Your task to perform on an android device: Set the phone to "Do not disturb". Image 0: 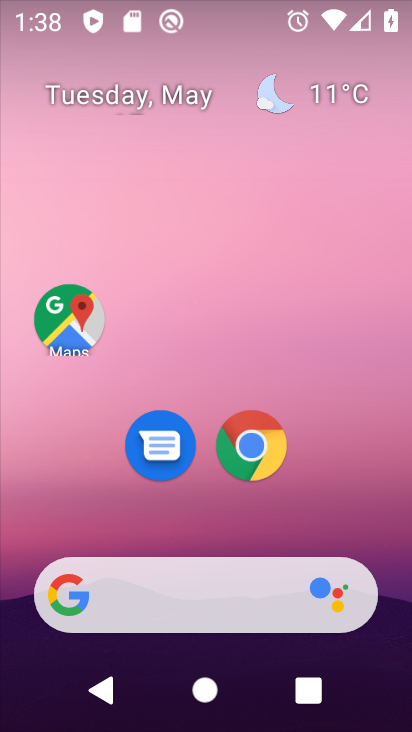
Step 0: drag from (288, 13) to (269, 208)
Your task to perform on an android device: Set the phone to "Do not disturb". Image 1: 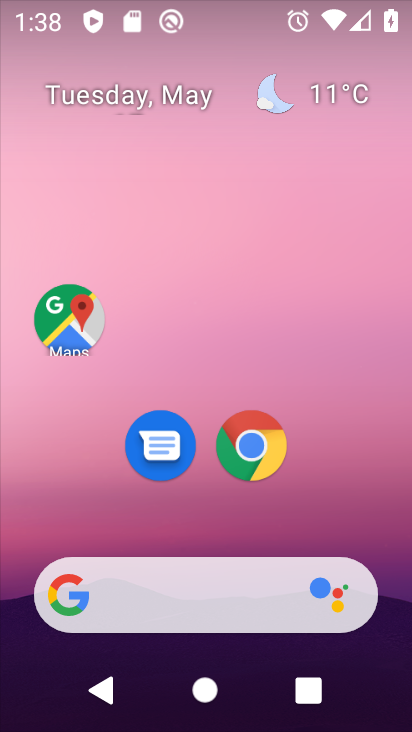
Step 1: drag from (264, 10) to (350, 481)
Your task to perform on an android device: Set the phone to "Do not disturb". Image 2: 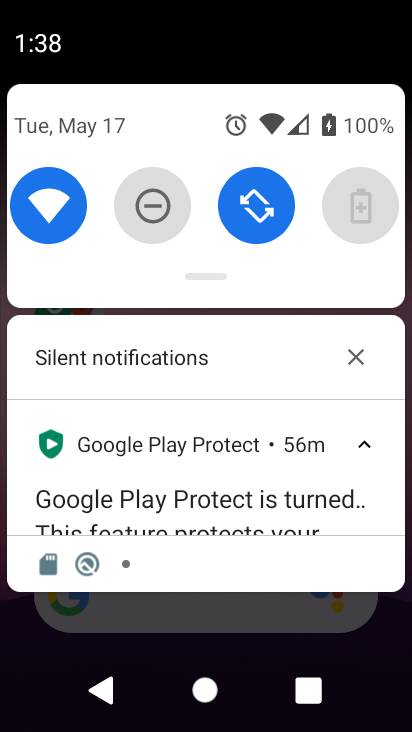
Step 2: click (162, 200)
Your task to perform on an android device: Set the phone to "Do not disturb". Image 3: 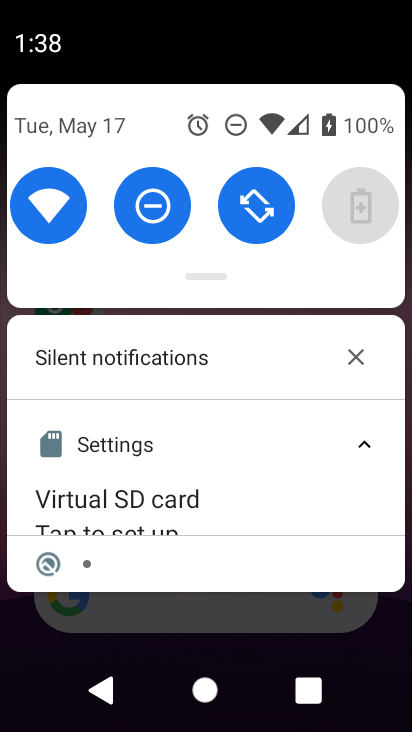
Step 3: task complete